Your task to perform on an android device: What's on my calendar today? Image 0: 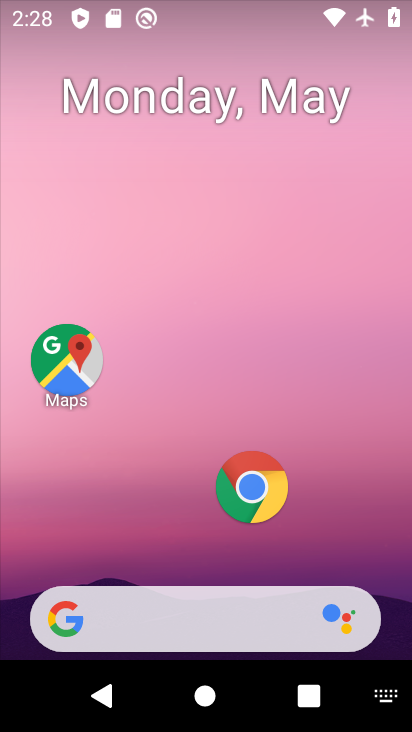
Step 0: drag from (156, 561) to (172, 137)
Your task to perform on an android device: What's on my calendar today? Image 1: 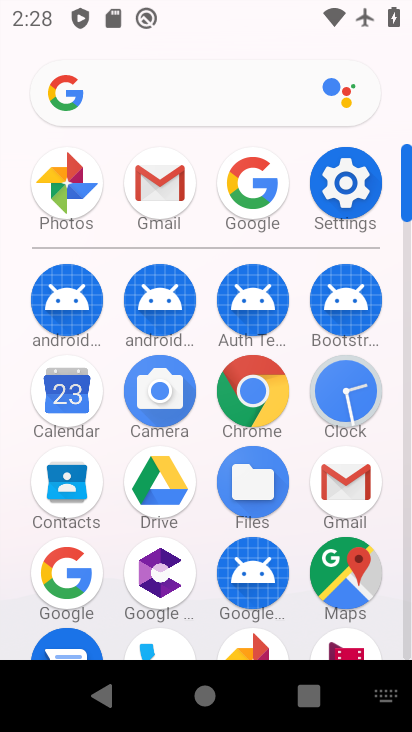
Step 1: click (61, 379)
Your task to perform on an android device: What's on my calendar today? Image 2: 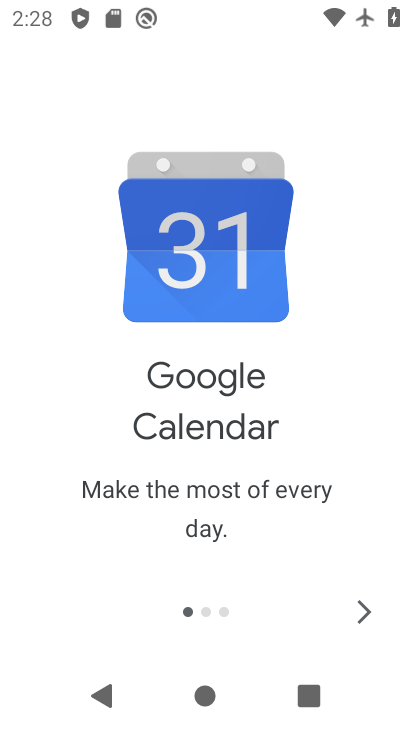
Step 2: click (380, 612)
Your task to perform on an android device: What's on my calendar today? Image 3: 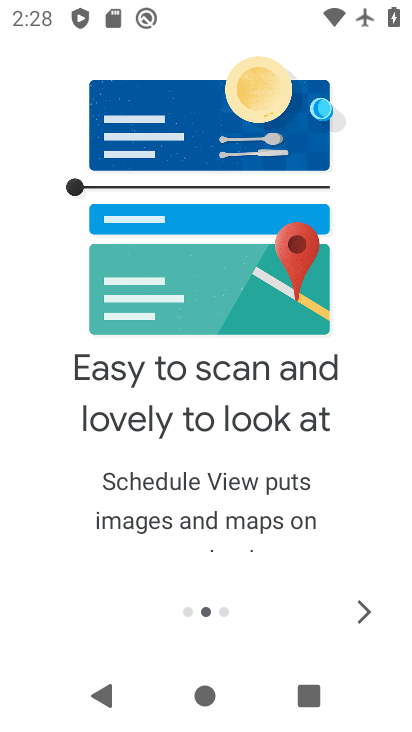
Step 3: click (372, 613)
Your task to perform on an android device: What's on my calendar today? Image 4: 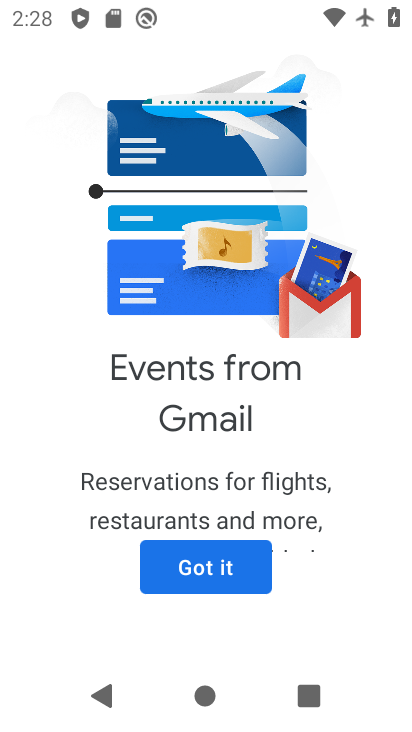
Step 4: click (190, 571)
Your task to perform on an android device: What's on my calendar today? Image 5: 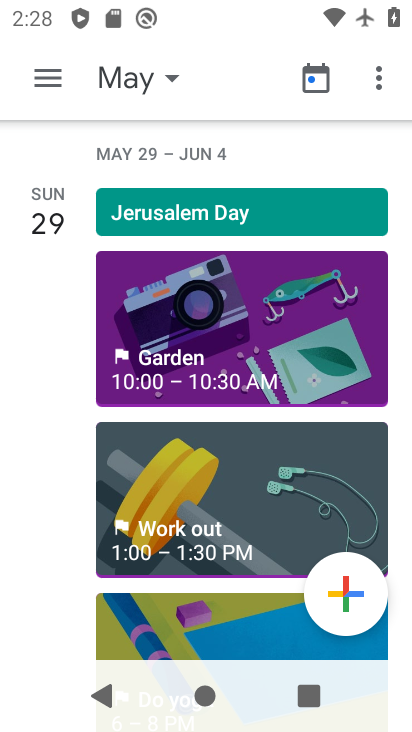
Step 5: click (134, 77)
Your task to perform on an android device: What's on my calendar today? Image 6: 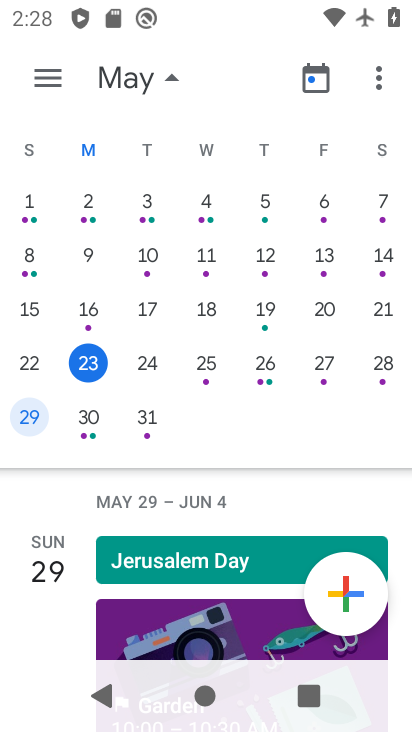
Step 6: click (90, 359)
Your task to perform on an android device: What's on my calendar today? Image 7: 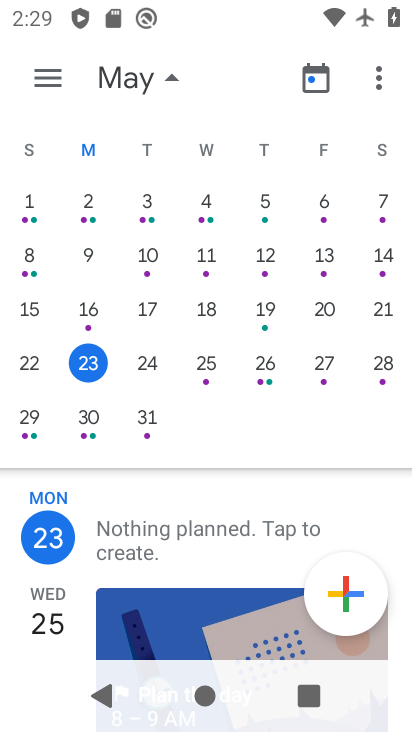
Step 7: task complete